Your task to perform on an android device: Open Wikipedia Image 0: 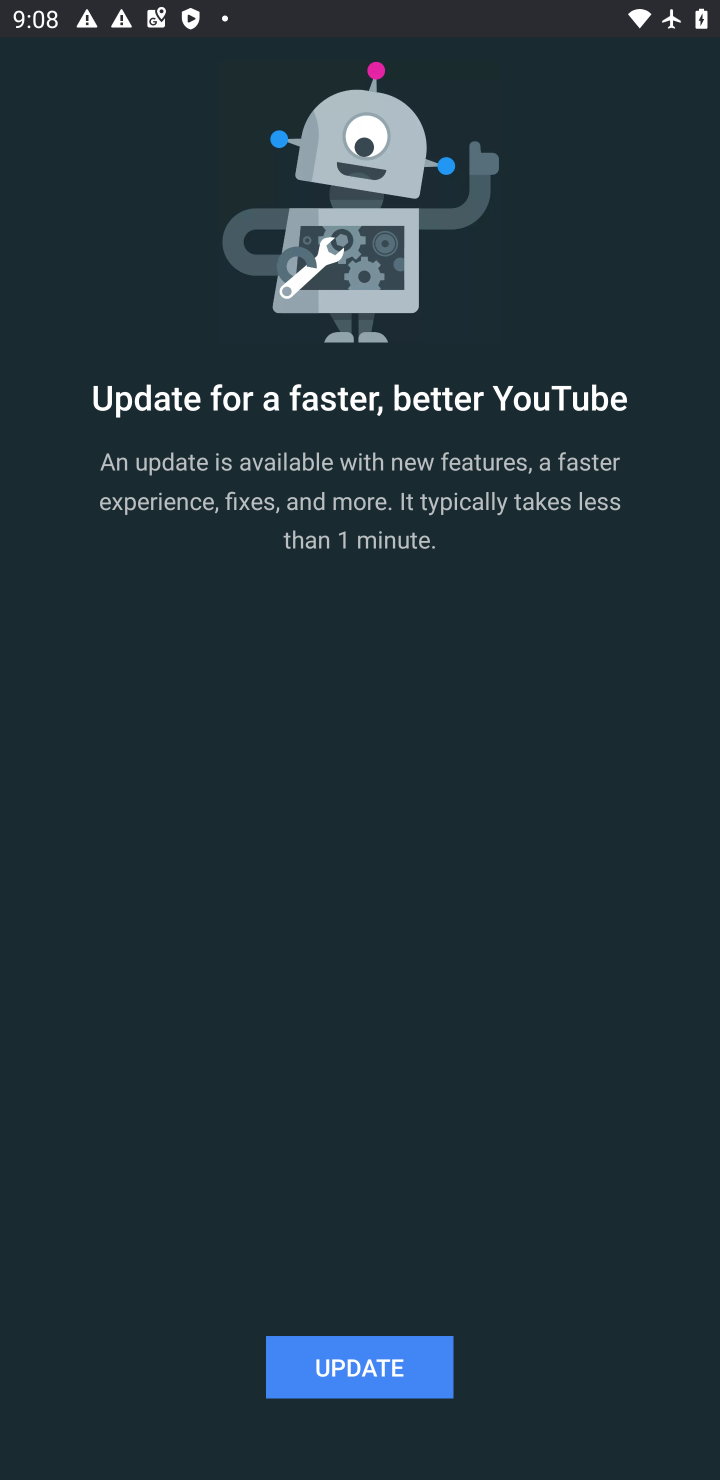
Step 0: press home button
Your task to perform on an android device: Open Wikipedia Image 1: 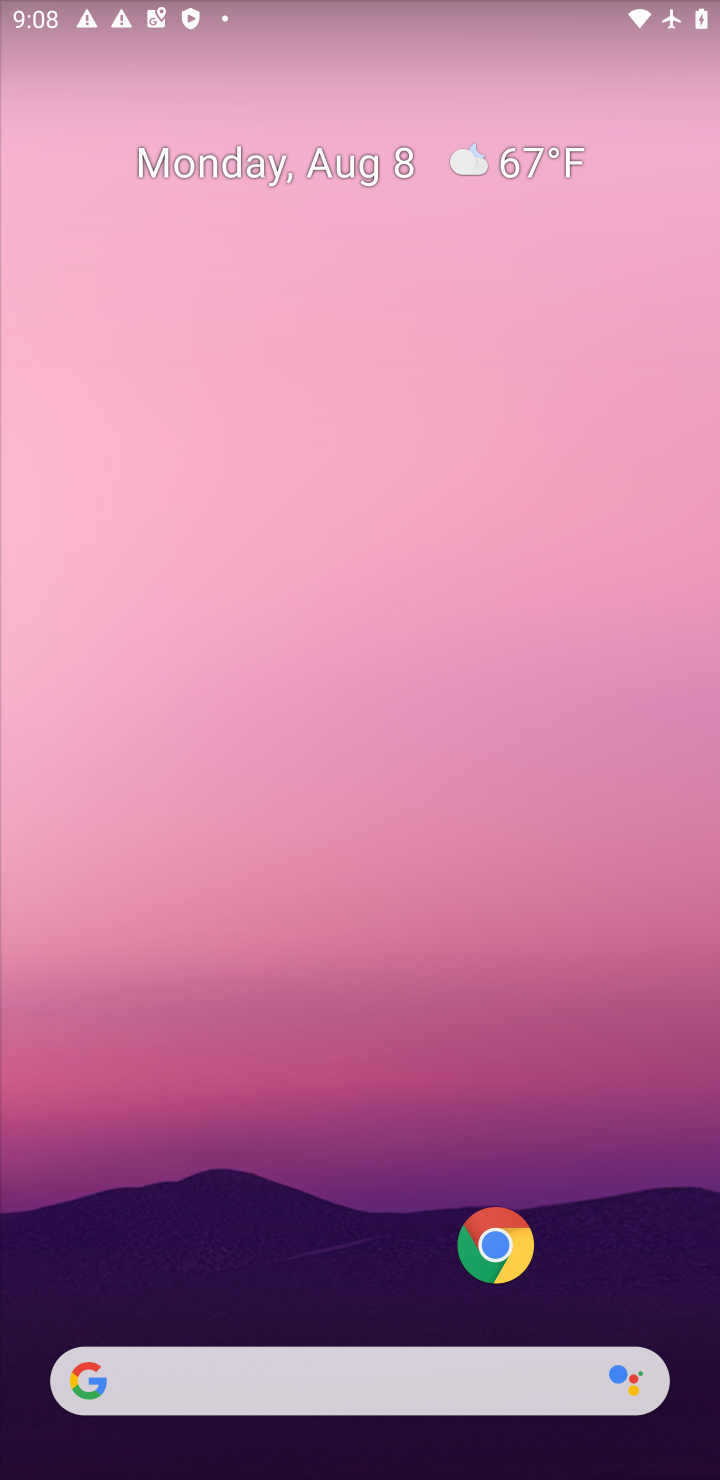
Step 1: click (492, 1237)
Your task to perform on an android device: Open Wikipedia Image 2: 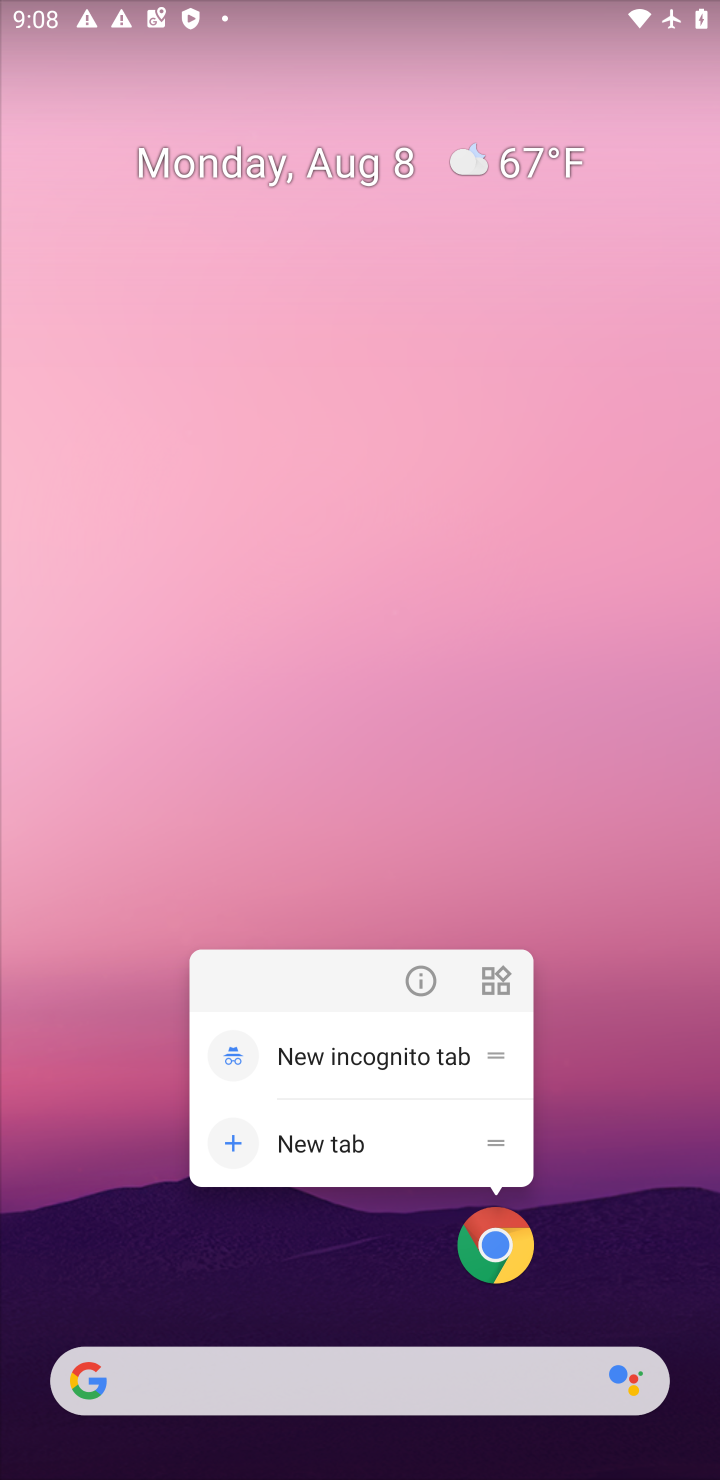
Step 2: click (490, 1239)
Your task to perform on an android device: Open Wikipedia Image 3: 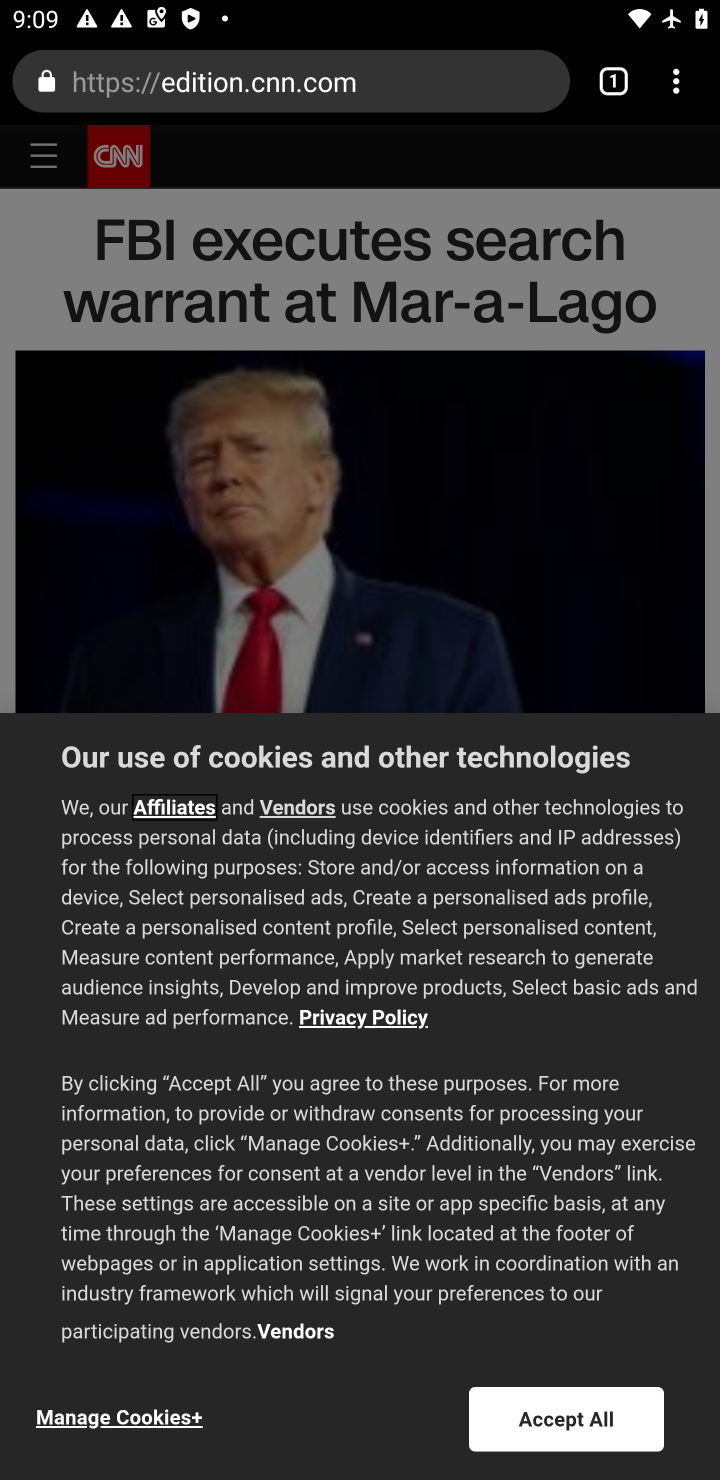
Step 3: click (249, 100)
Your task to perform on an android device: Open Wikipedia Image 4: 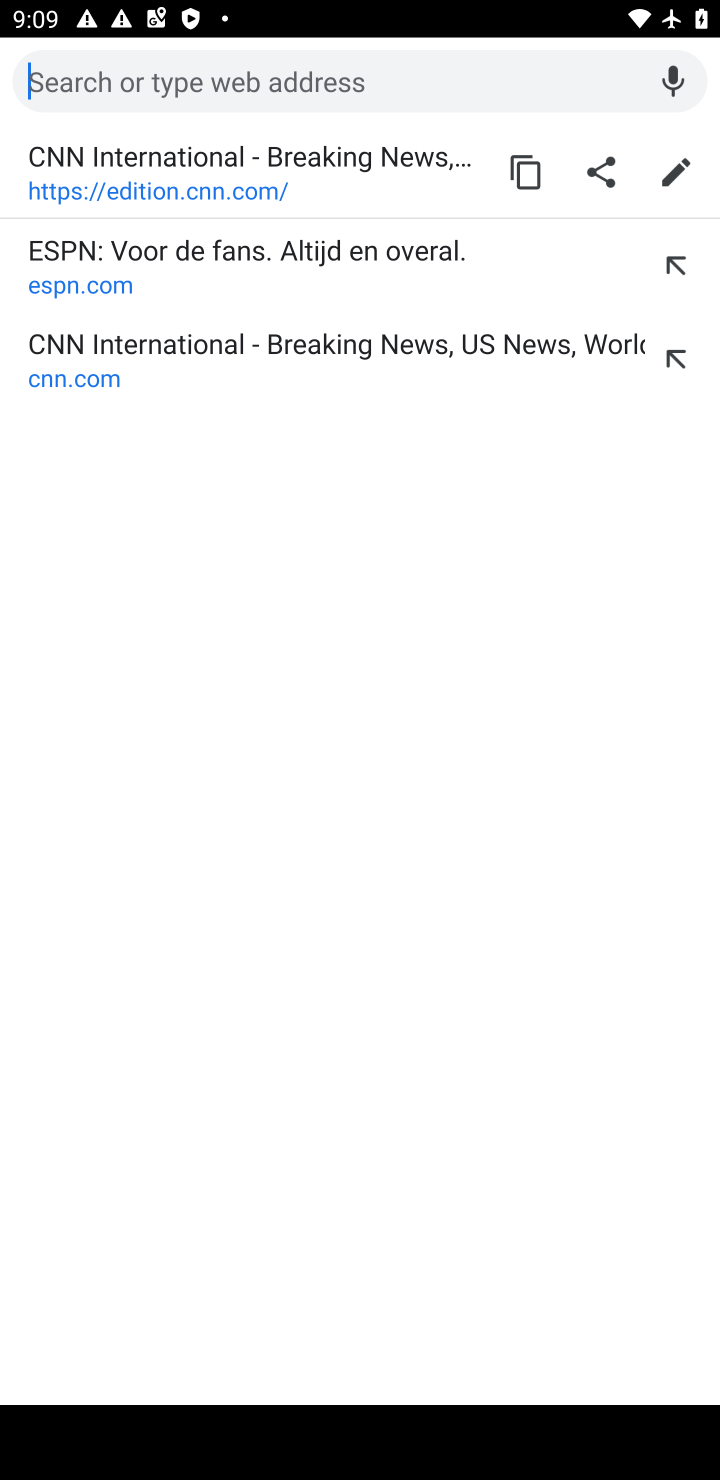
Step 4: type "wikipedia"
Your task to perform on an android device: Open Wikipedia Image 5: 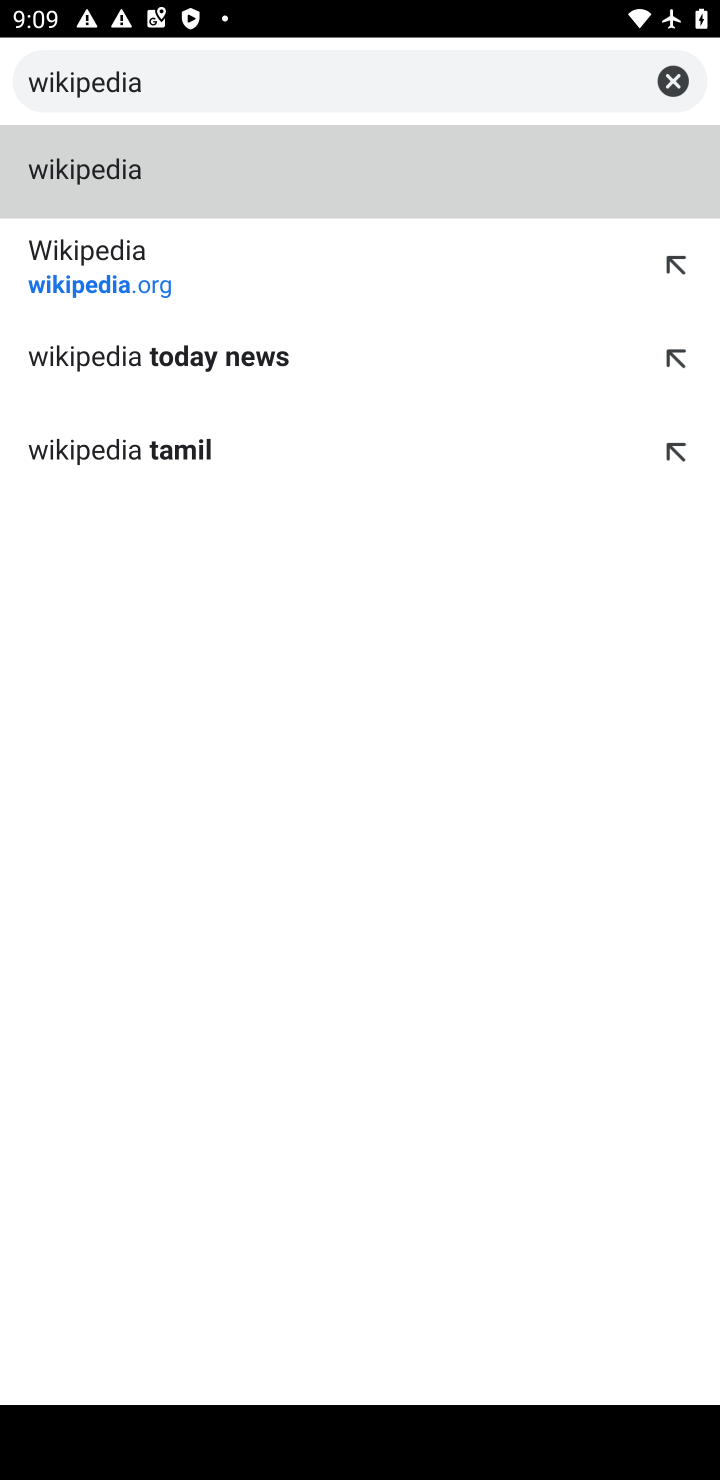
Step 5: click (88, 174)
Your task to perform on an android device: Open Wikipedia Image 6: 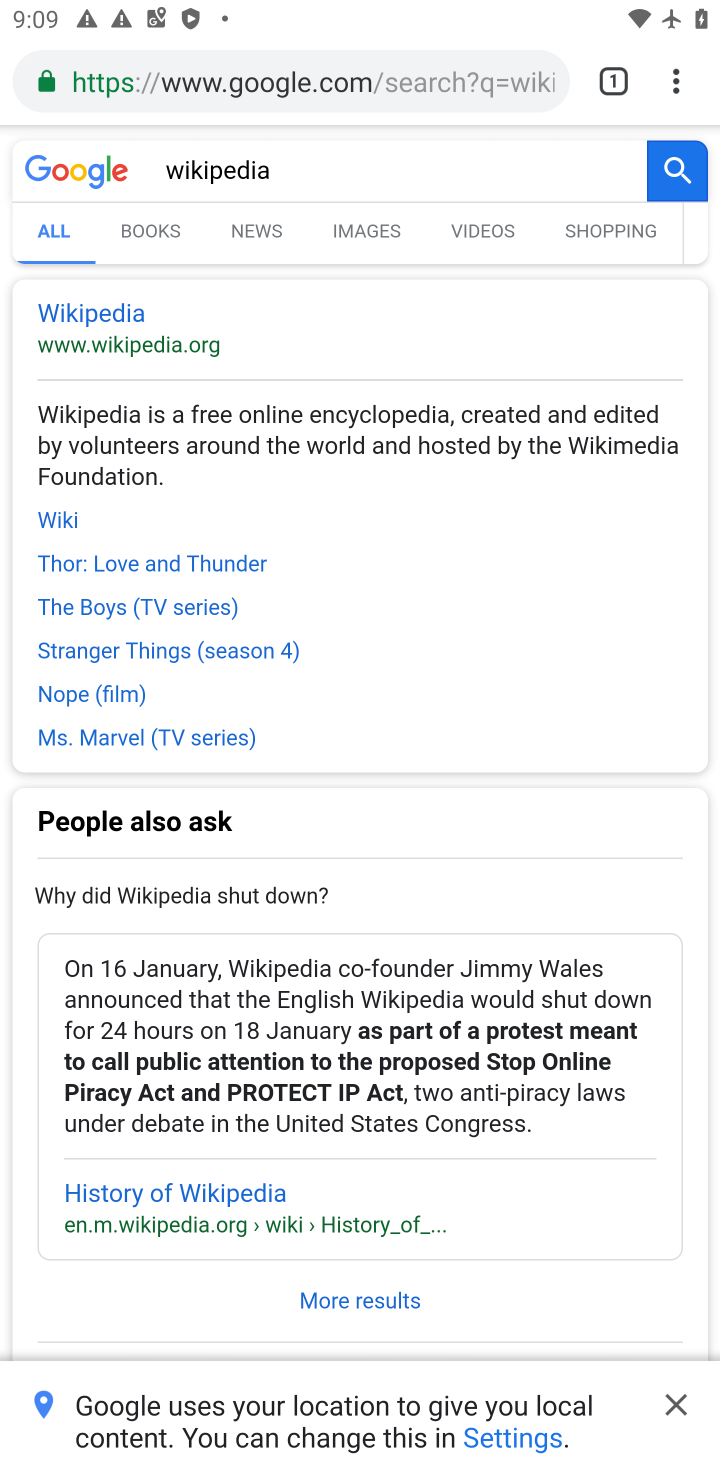
Step 6: task complete